Your task to perform on an android device: Open the Play Movies app and select the watchlist tab. Image 0: 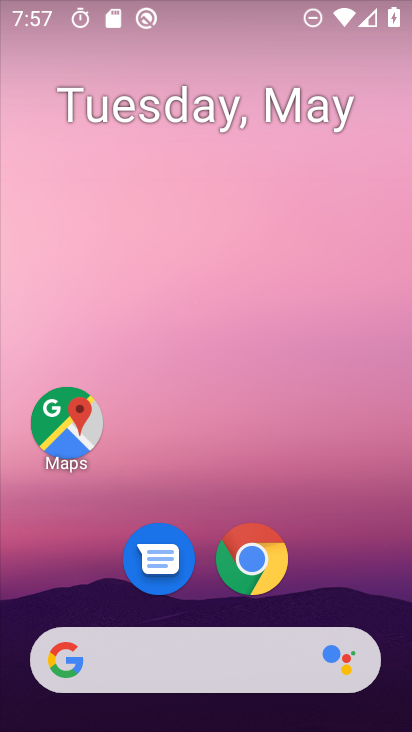
Step 0: drag from (395, 637) to (341, 9)
Your task to perform on an android device: Open the Play Movies app and select the watchlist tab. Image 1: 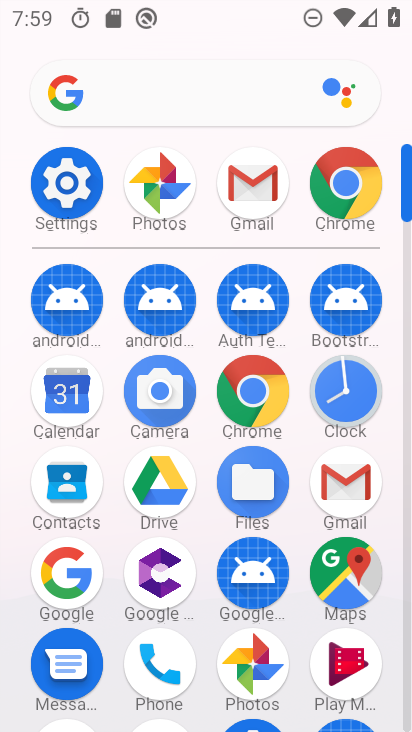
Step 1: click (352, 658)
Your task to perform on an android device: Open the Play Movies app and select the watchlist tab. Image 2: 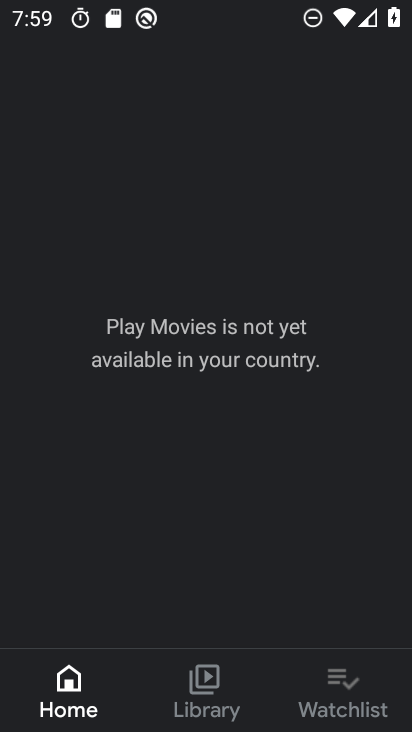
Step 2: click (375, 685)
Your task to perform on an android device: Open the Play Movies app and select the watchlist tab. Image 3: 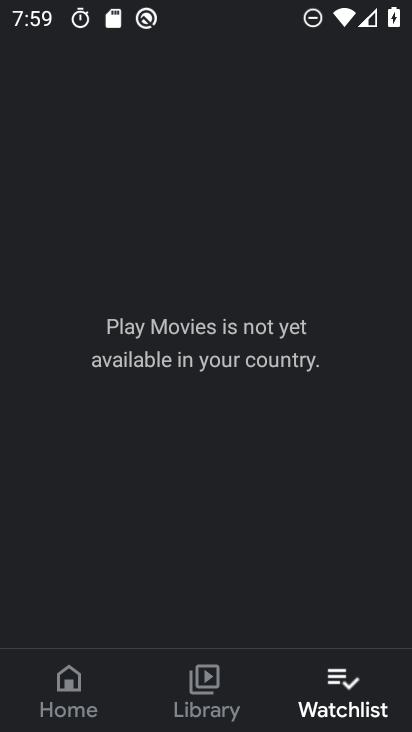
Step 3: task complete